Your task to perform on an android device: Search for "dell alienware" on target.com, select the first entry, and add it to the cart. Image 0: 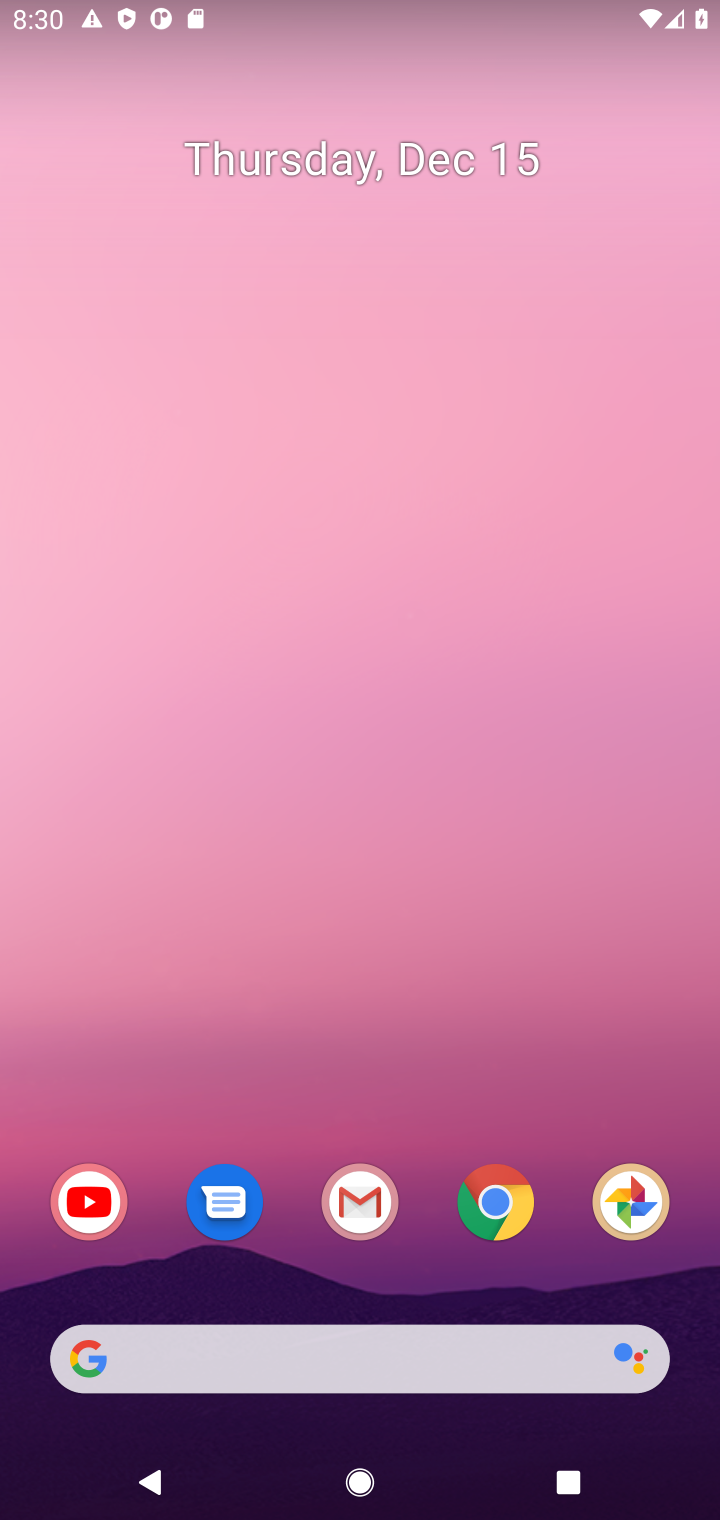
Step 0: click (501, 1224)
Your task to perform on an android device: Search for "dell alienware" on target.com, select the first entry, and add it to the cart. Image 1: 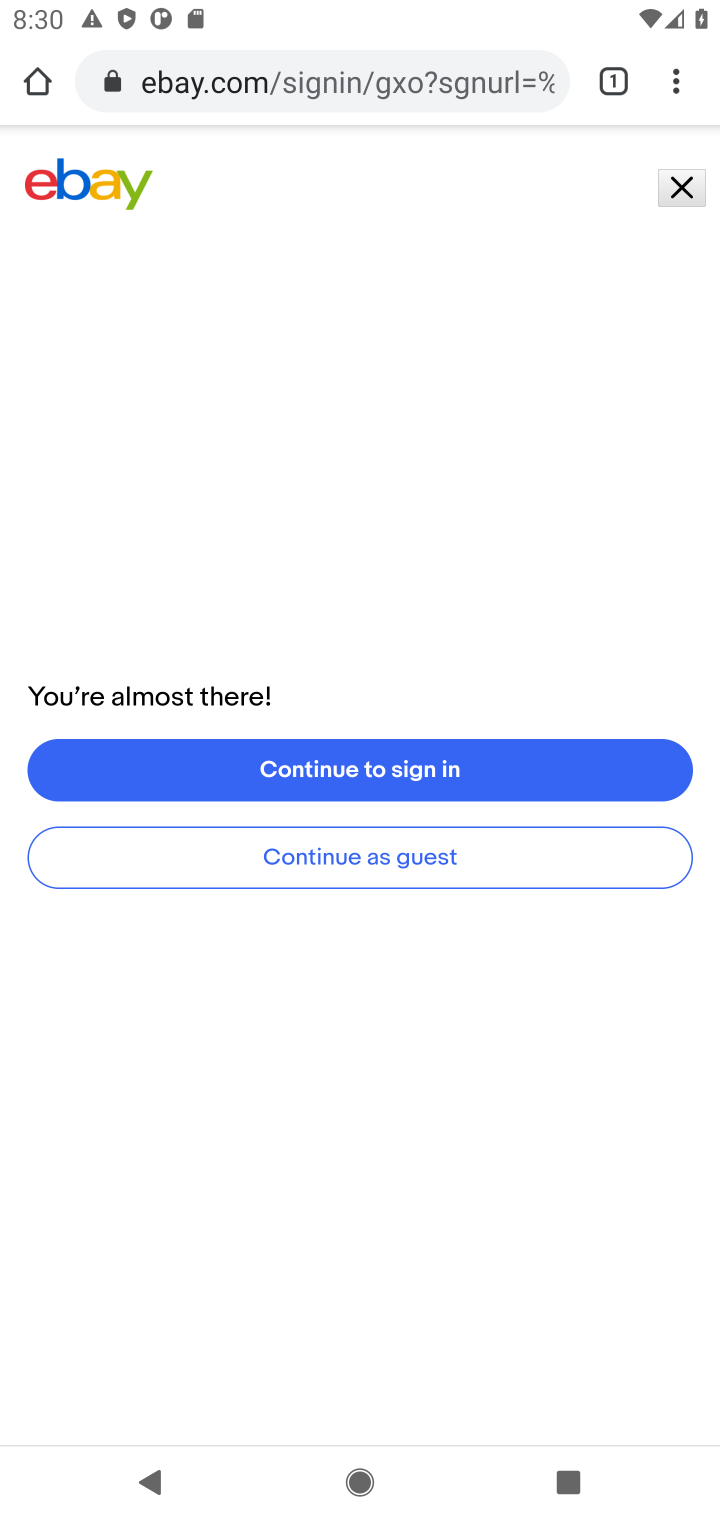
Step 1: click (299, 89)
Your task to perform on an android device: Search for "dell alienware" on target.com, select the first entry, and add it to the cart. Image 2: 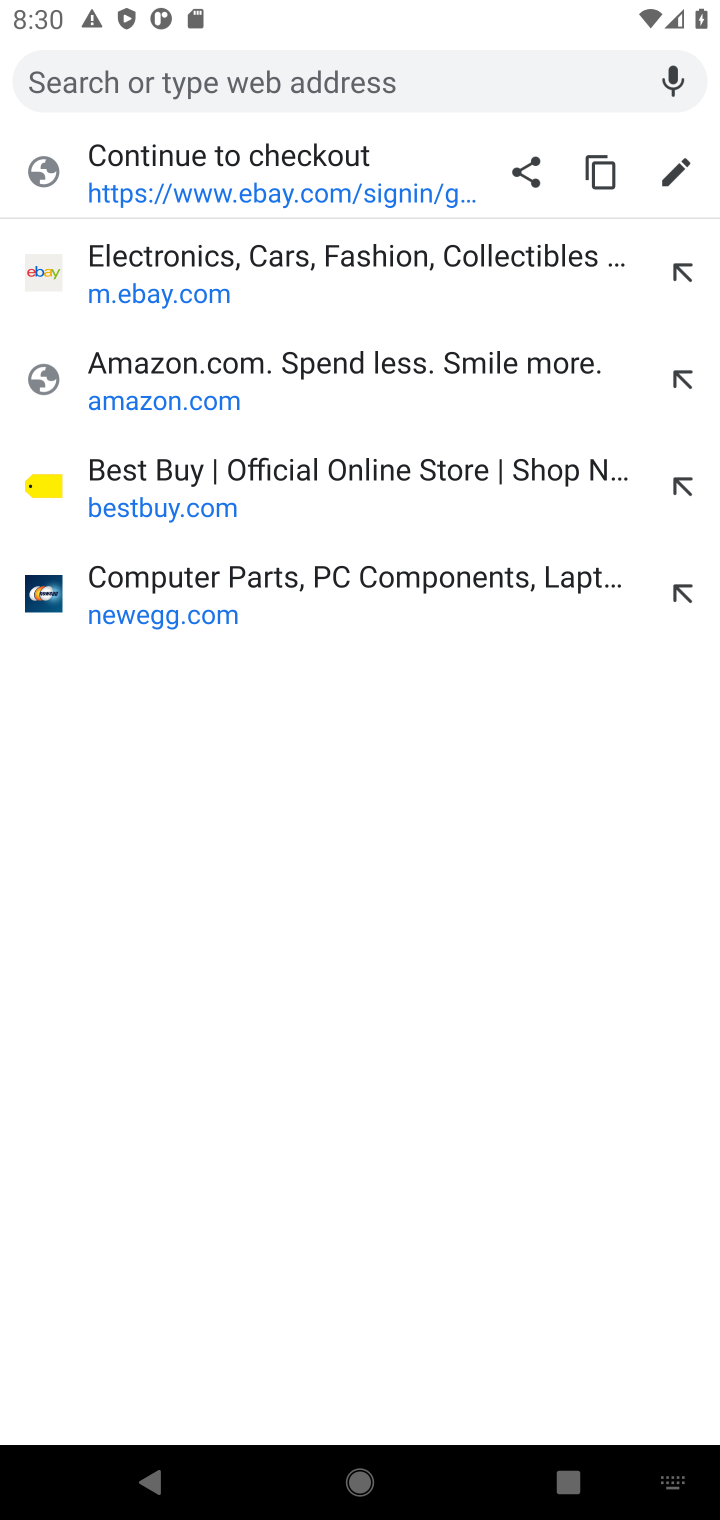
Step 2: type "target.com"
Your task to perform on an android device: Search for "dell alienware" on target.com, select the first entry, and add it to the cart. Image 3: 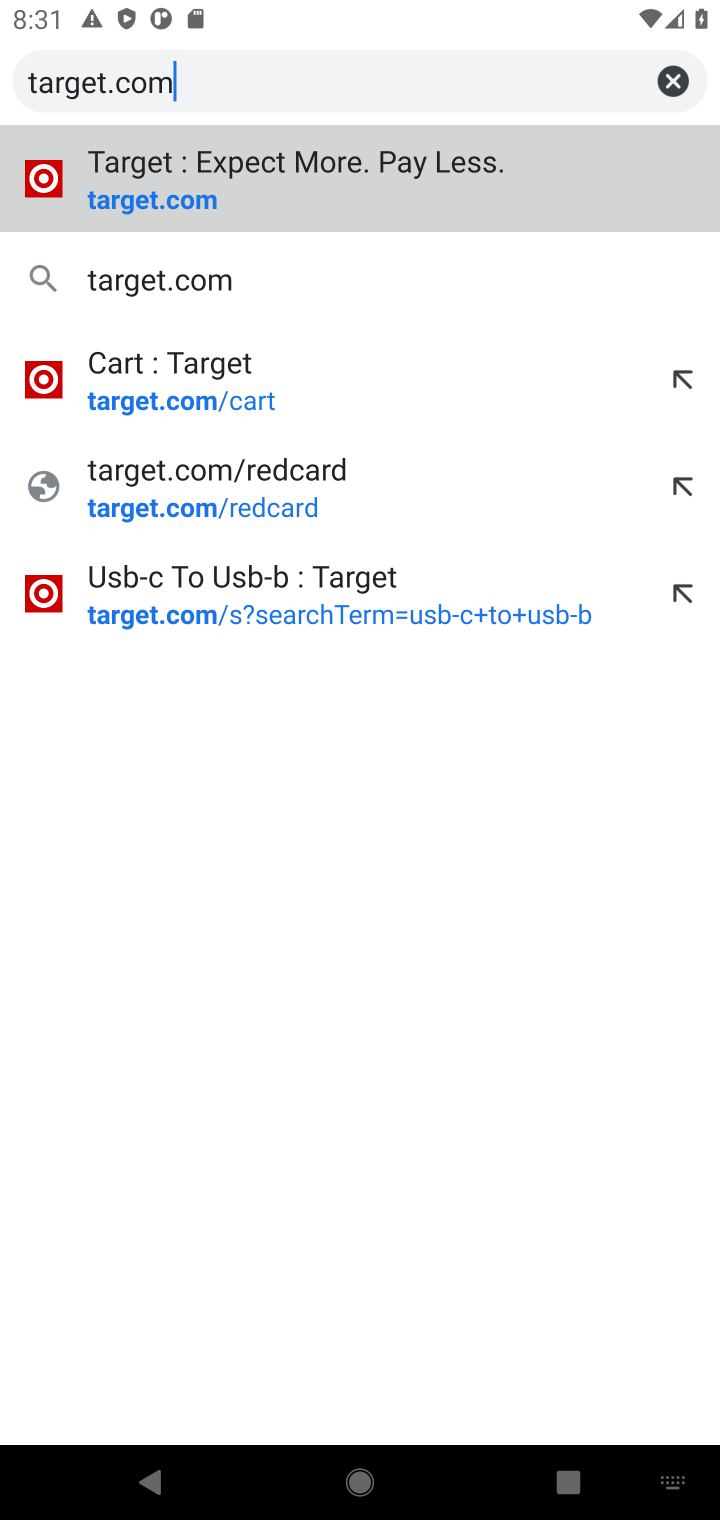
Step 3: click (99, 211)
Your task to perform on an android device: Search for "dell alienware" on target.com, select the first entry, and add it to the cart. Image 4: 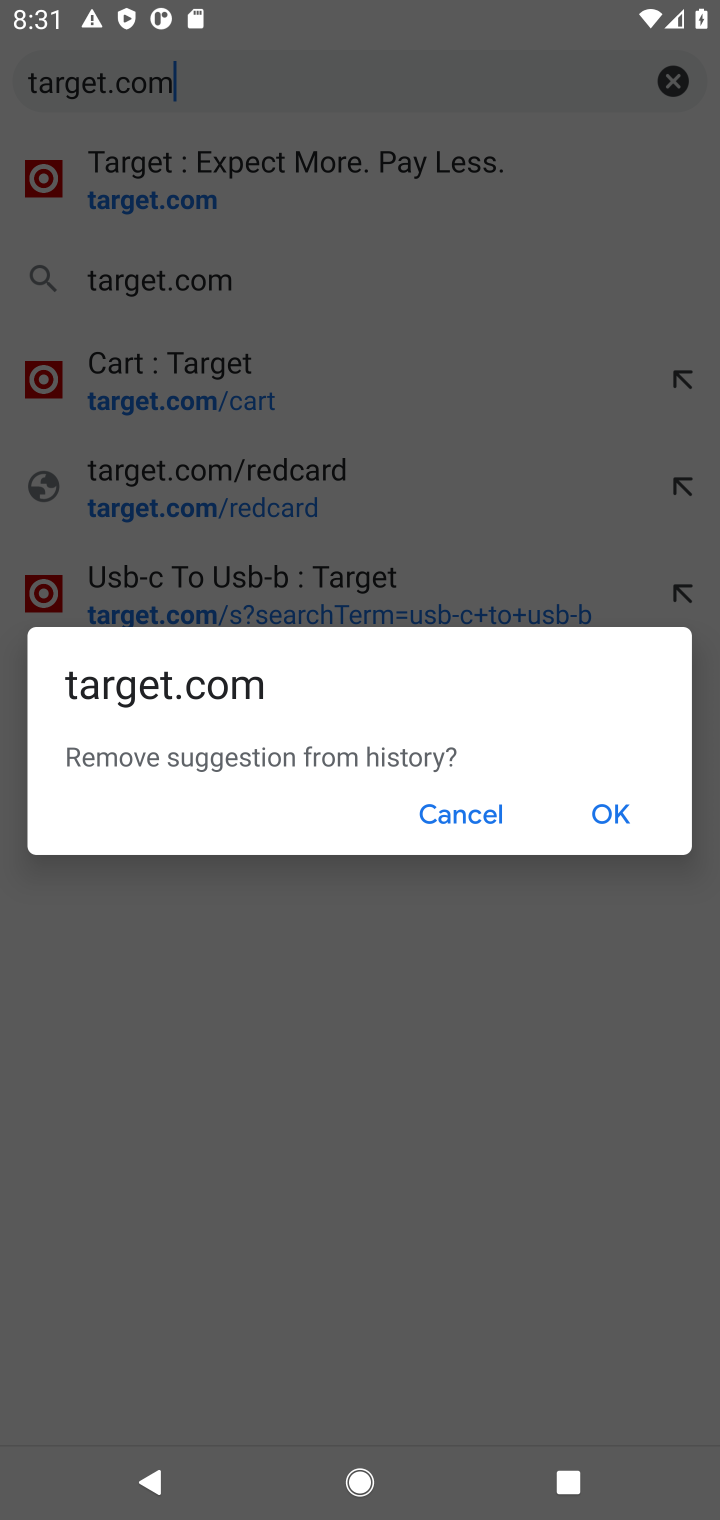
Step 4: click (433, 816)
Your task to perform on an android device: Search for "dell alienware" on target.com, select the first entry, and add it to the cart. Image 5: 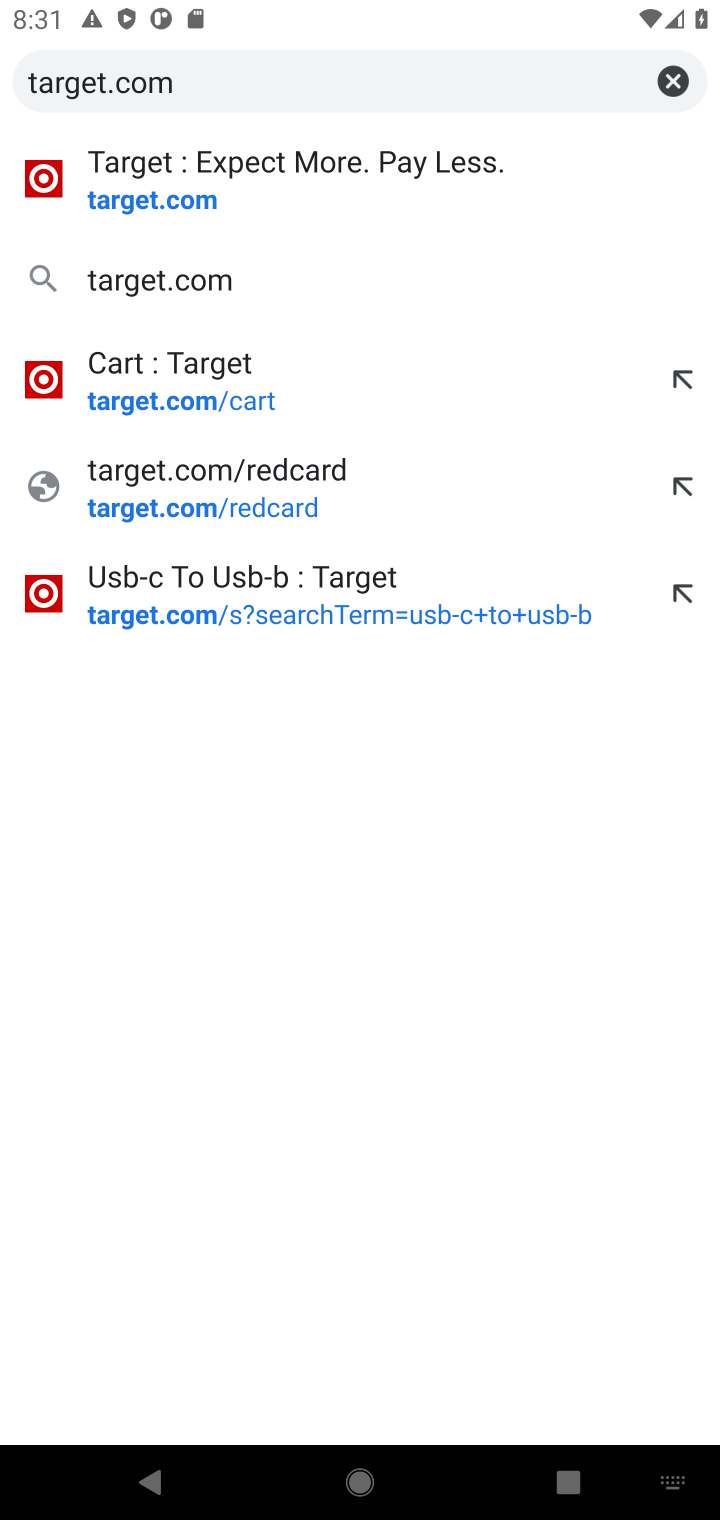
Step 5: click (95, 216)
Your task to perform on an android device: Search for "dell alienware" on target.com, select the first entry, and add it to the cart. Image 6: 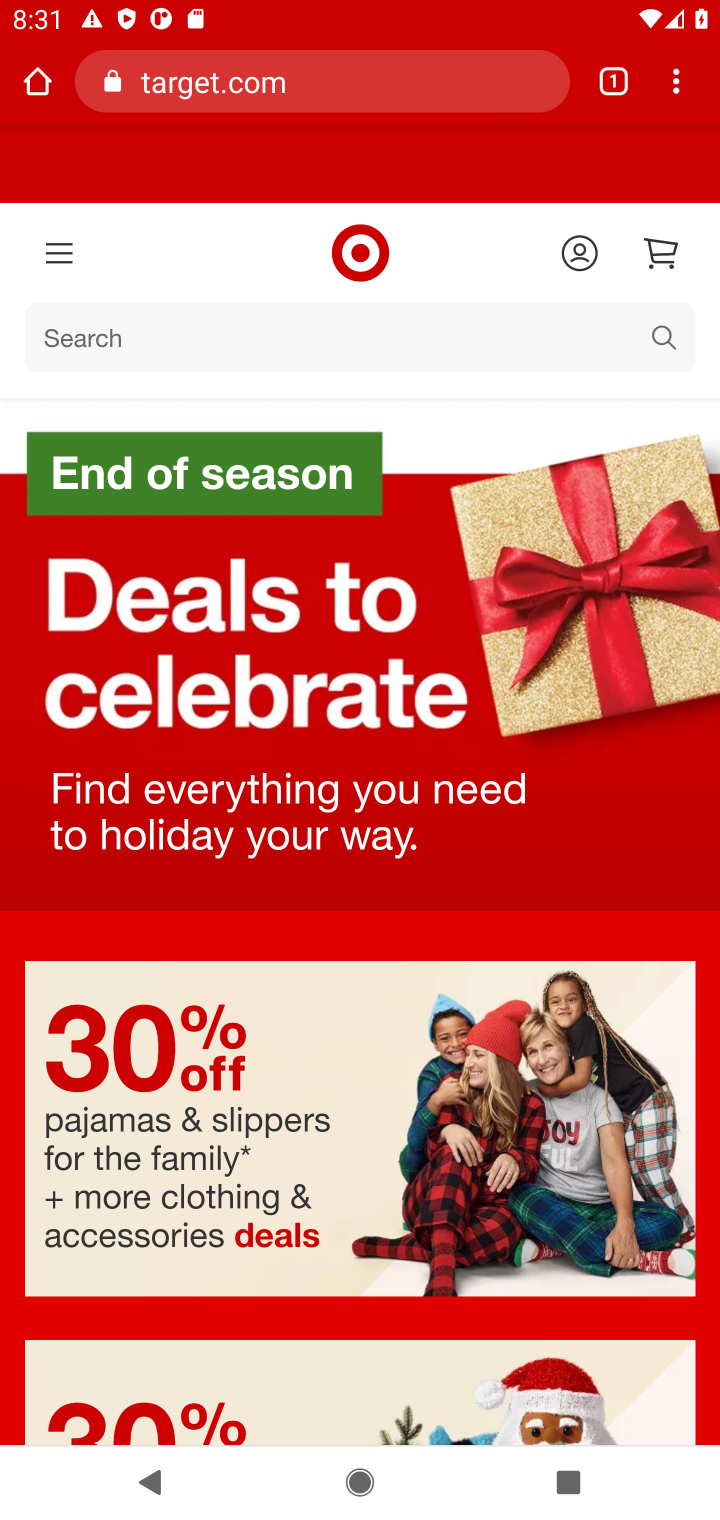
Step 6: click (55, 333)
Your task to perform on an android device: Search for "dell alienware" on target.com, select the first entry, and add it to the cart. Image 7: 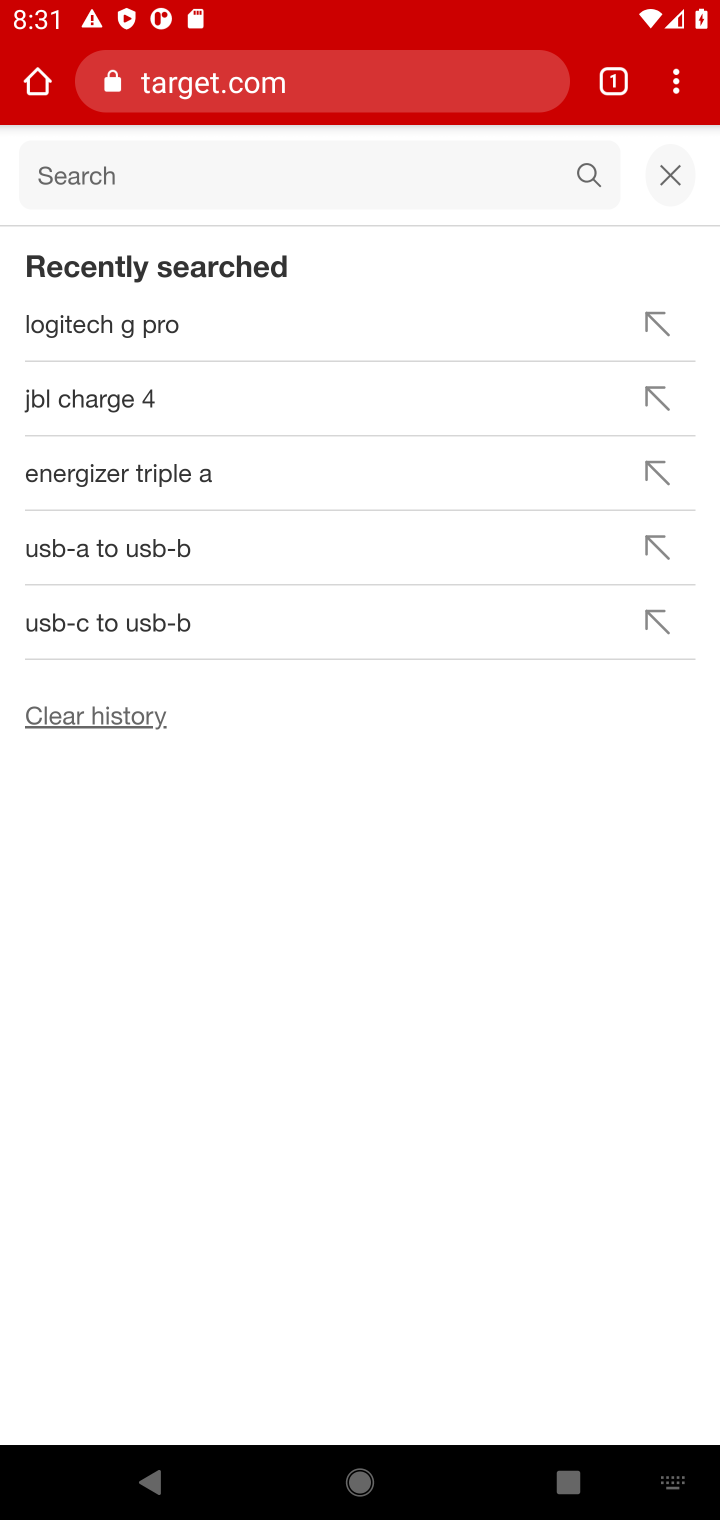
Step 7: type "dell alienware"
Your task to perform on an android device: Search for "dell alienware" on target.com, select the first entry, and add it to the cart. Image 8: 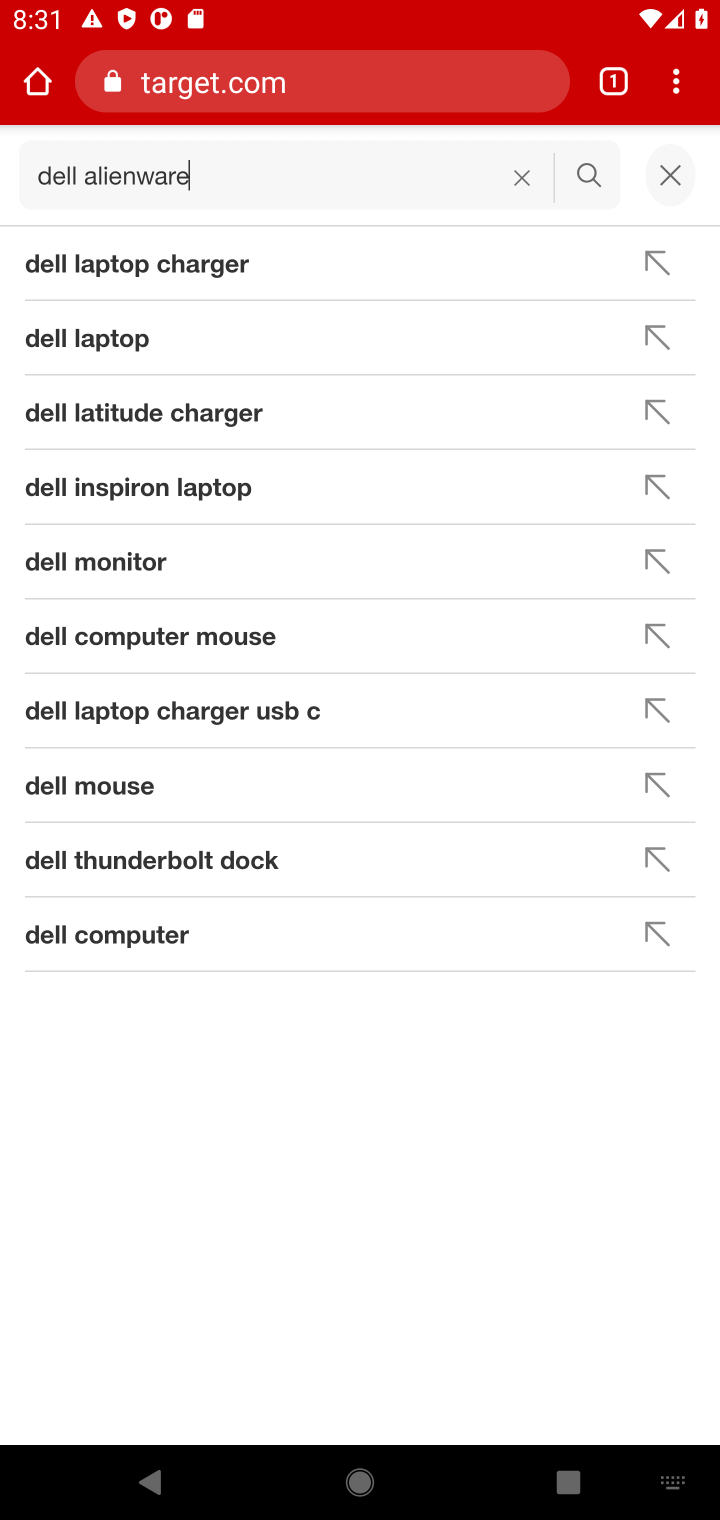
Step 8: click (589, 175)
Your task to perform on an android device: Search for "dell alienware" on target.com, select the first entry, and add it to the cart. Image 9: 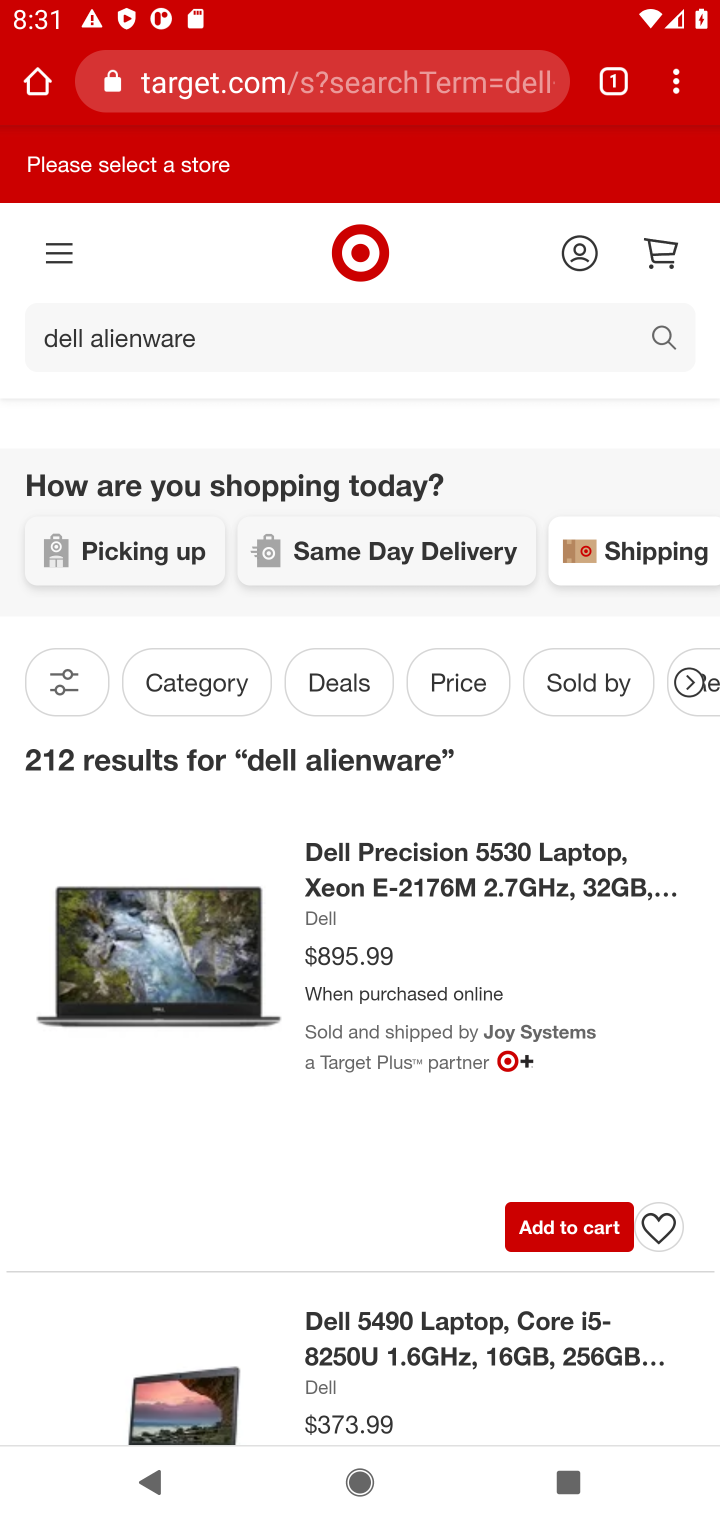
Step 9: task complete